Your task to perform on an android device: Open battery settings Image 0: 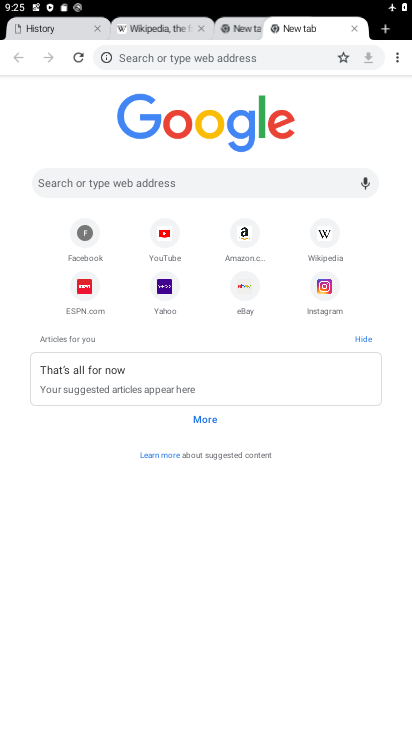
Step 0: press home button
Your task to perform on an android device: Open battery settings Image 1: 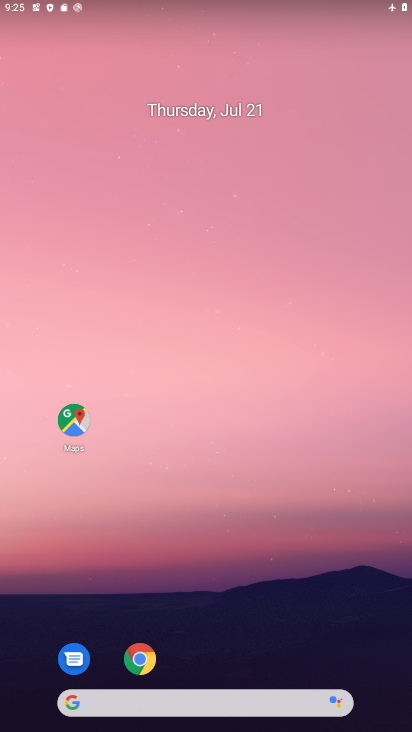
Step 1: drag from (221, 679) to (223, 95)
Your task to perform on an android device: Open battery settings Image 2: 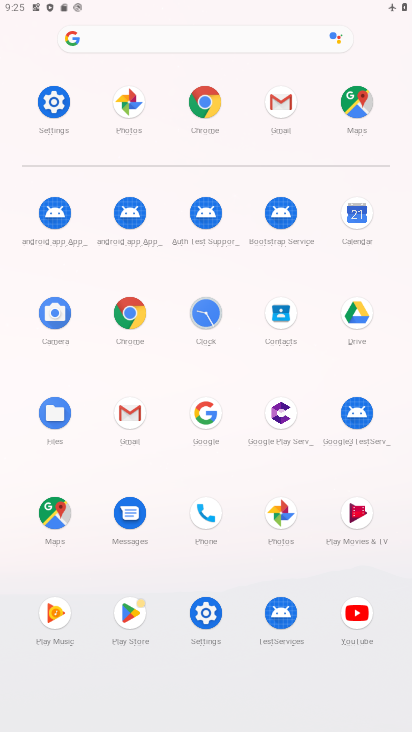
Step 2: click (55, 112)
Your task to perform on an android device: Open battery settings Image 3: 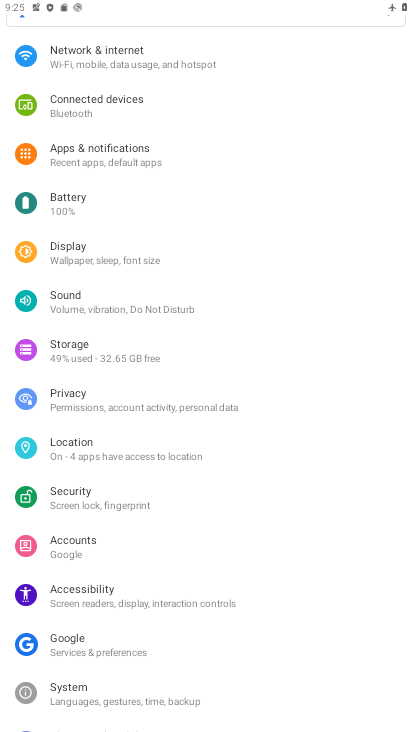
Step 3: click (23, 196)
Your task to perform on an android device: Open battery settings Image 4: 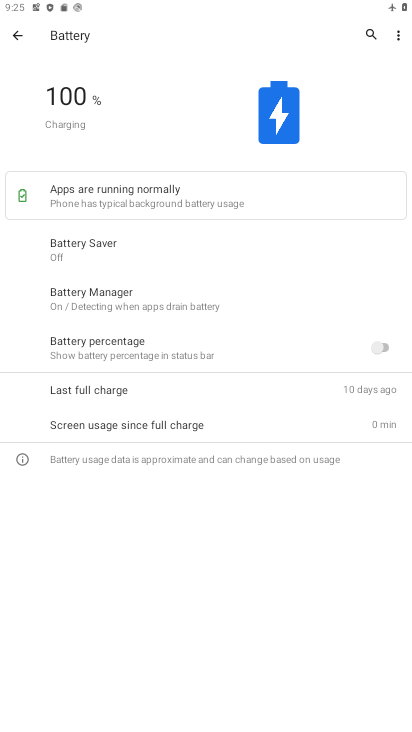
Step 4: task complete